Your task to perform on an android device: change timer sound Image 0: 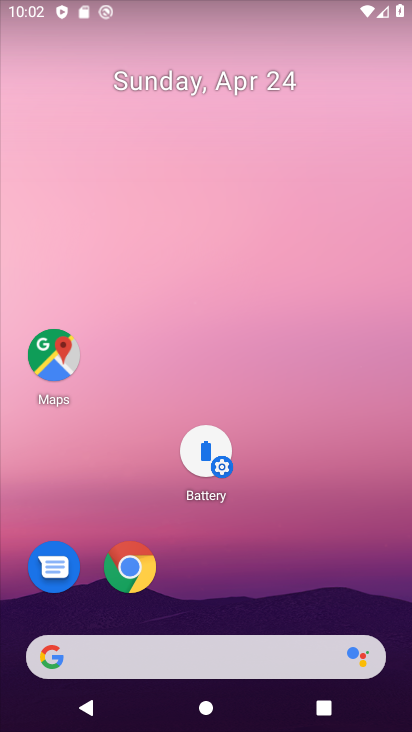
Step 0: drag from (65, 479) to (161, 257)
Your task to perform on an android device: change timer sound Image 1: 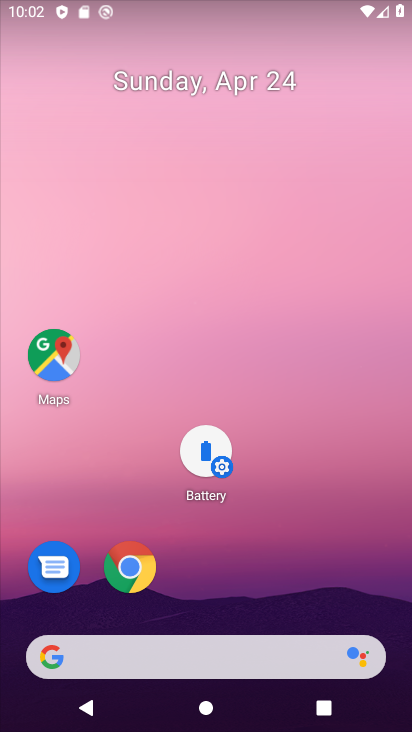
Step 1: drag from (28, 623) to (333, 91)
Your task to perform on an android device: change timer sound Image 2: 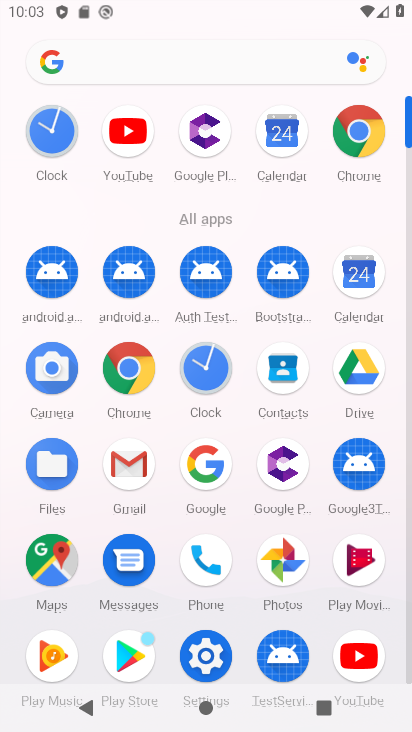
Step 2: click (35, 125)
Your task to perform on an android device: change timer sound Image 3: 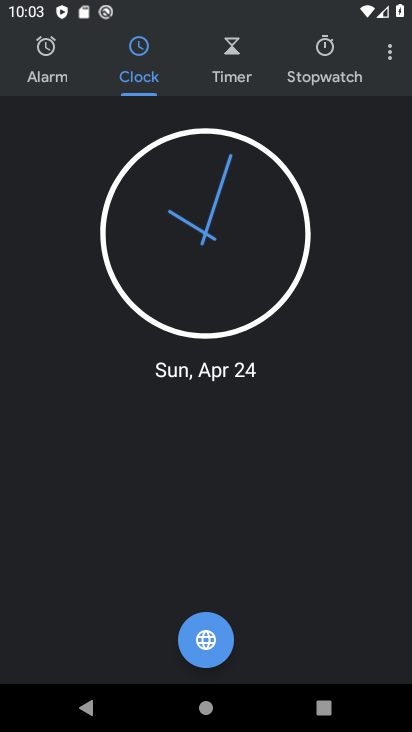
Step 3: click (392, 60)
Your task to perform on an android device: change timer sound Image 4: 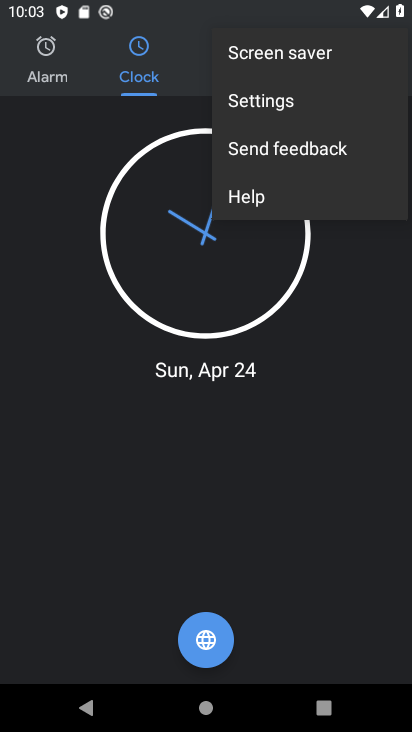
Step 4: click (271, 102)
Your task to perform on an android device: change timer sound Image 5: 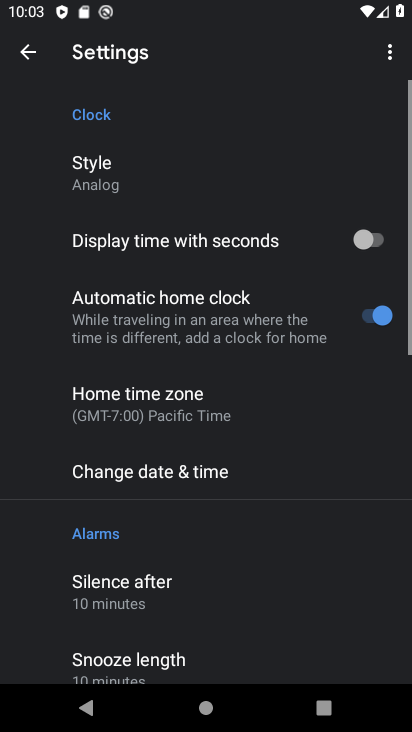
Step 5: drag from (127, 598) to (282, 158)
Your task to perform on an android device: change timer sound Image 6: 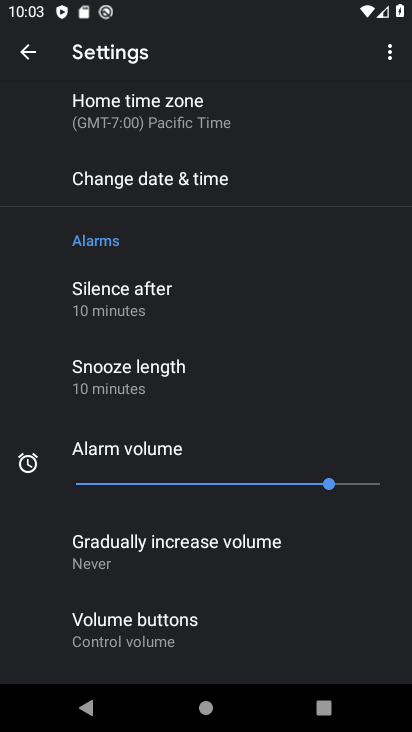
Step 6: drag from (109, 585) to (284, 249)
Your task to perform on an android device: change timer sound Image 7: 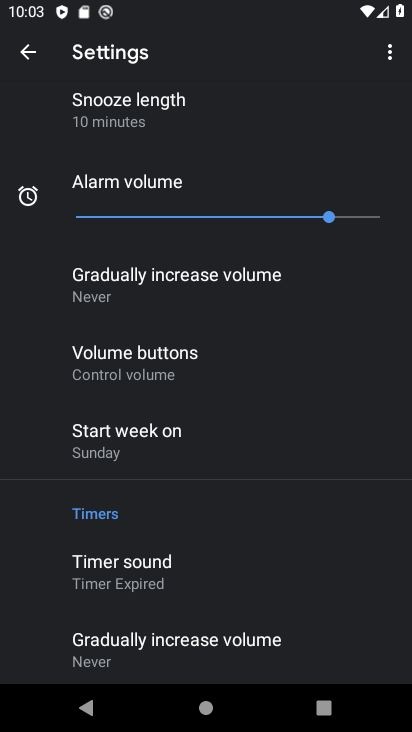
Step 7: click (128, 596)
Your task to perform on an android device: change timer sound Image 8: 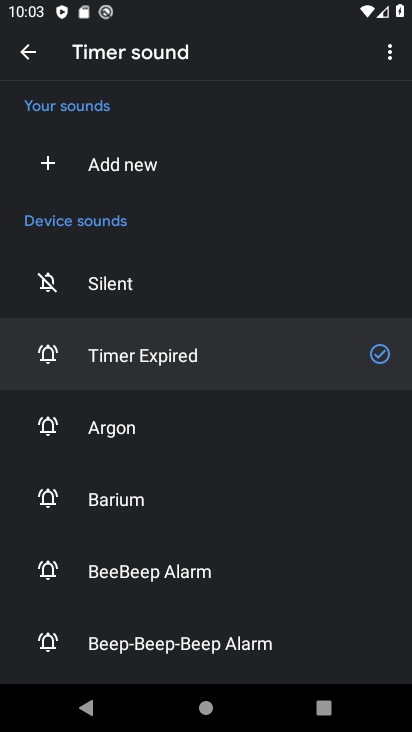
Step 8: click (152, 437)
Your task to perform on an android device: change timer sound Image 9: 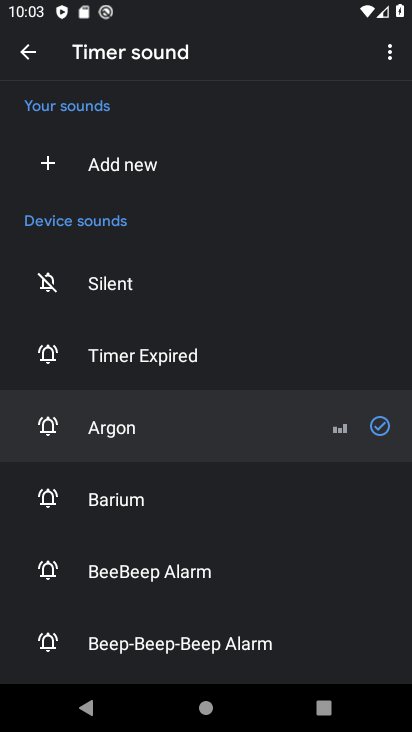
Step 9: task complete